Your task to perform on an android device: turn off location history Image 0: 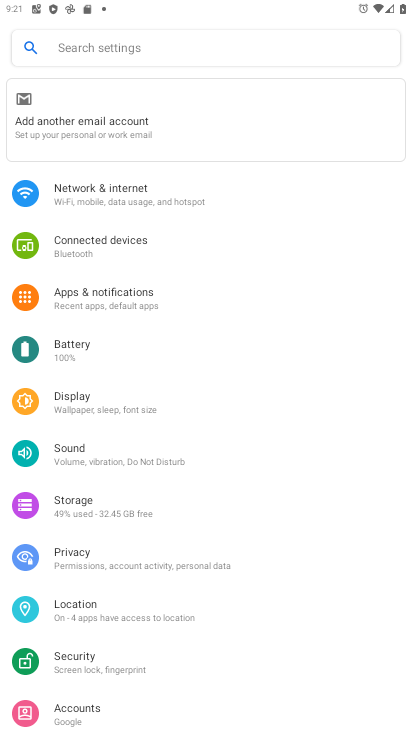
Step 0: click (126, 610)
Your task to perform on an android device: turn off location history Image 1: 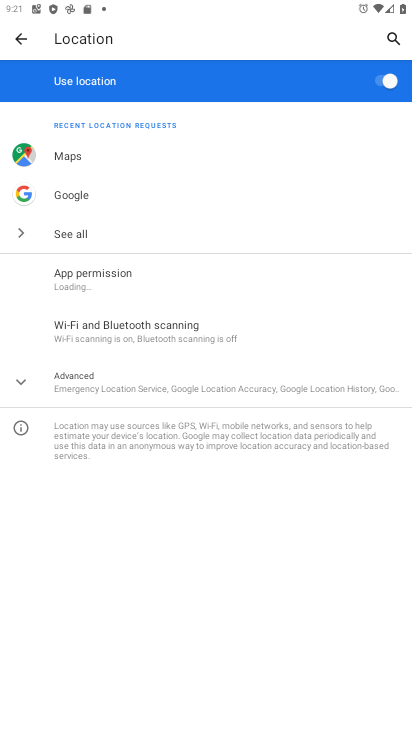
Step 1: click (390, 78)
Your task to perform on an android device: turn off location history Image 2: 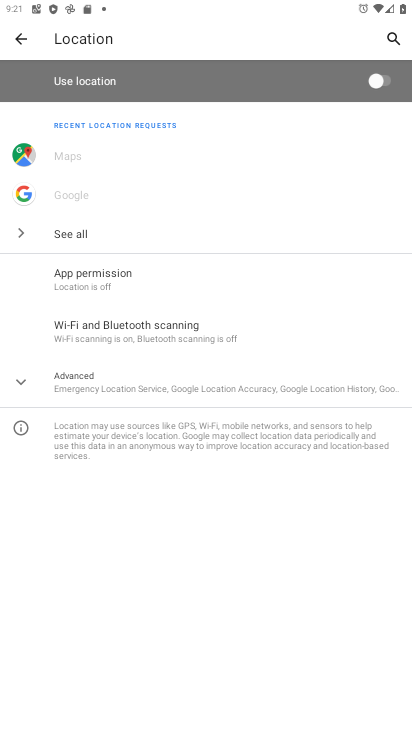
Step 2: task complete